Your task to perform on an android device: toggle translation in the chrome app Image 0: 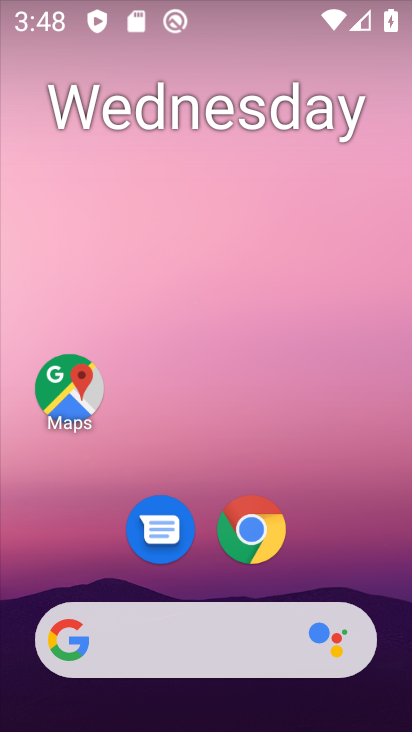
Step 0: click (263, 540)
Your task to perform on an android device: toggle translation in the chrome app Image 1: 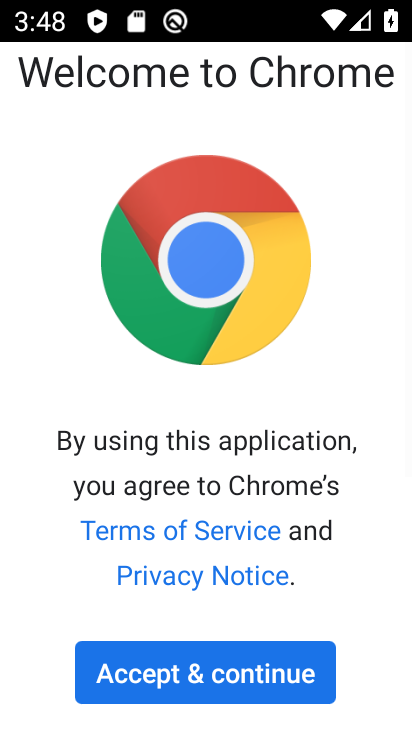
Step 1: click (245, 681)
Your task to perform on an android device: toggle translation in the chrome app Image 2: 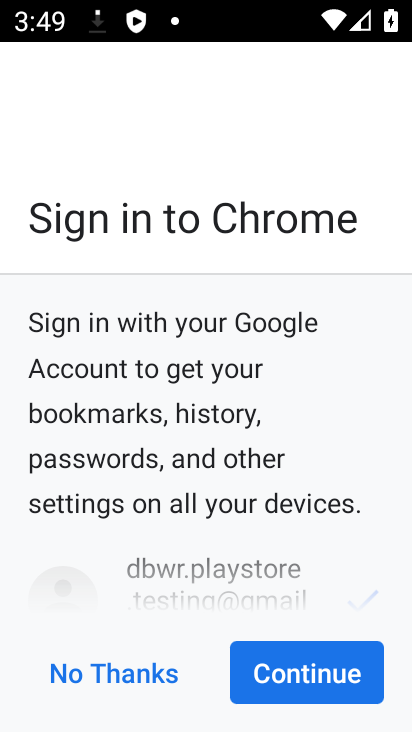
Step 2: click (275, 671)
Your task to perform on an android device: toggle translation in the chrome app Image 3: 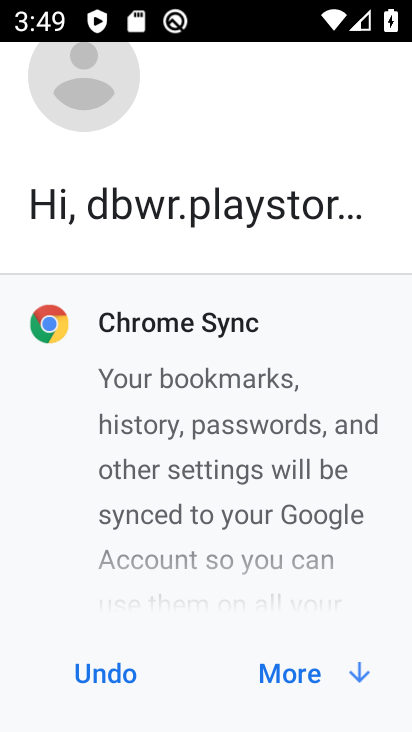
Step 3: click (275, 671)
Your task to perform on an android device: toggle translation in the chrome app Image 4: 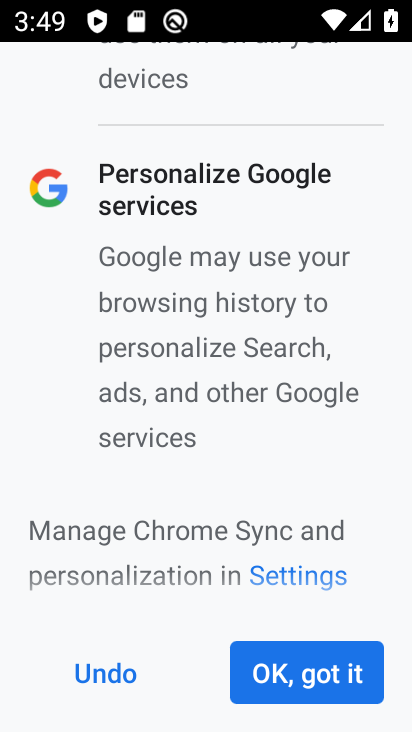
Step 4: click (275, 671)
Your task to perform on an android device: toggle translation in the chrome app Image 5: 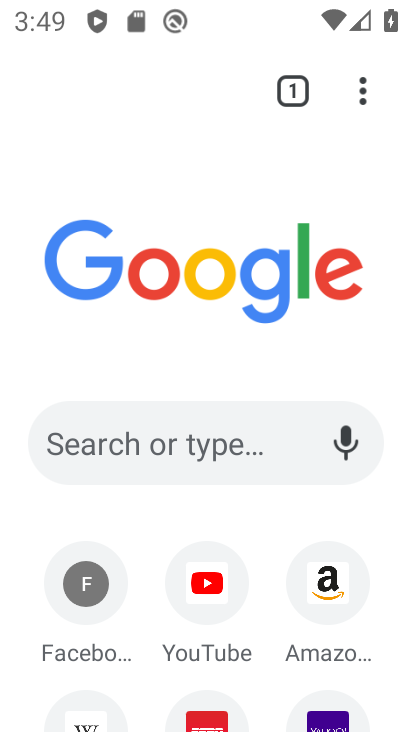
Step 5: drag from (361, 94) to (295, 582)
Your task to perform on an android device: toggle translation in the chrome app Image 6: 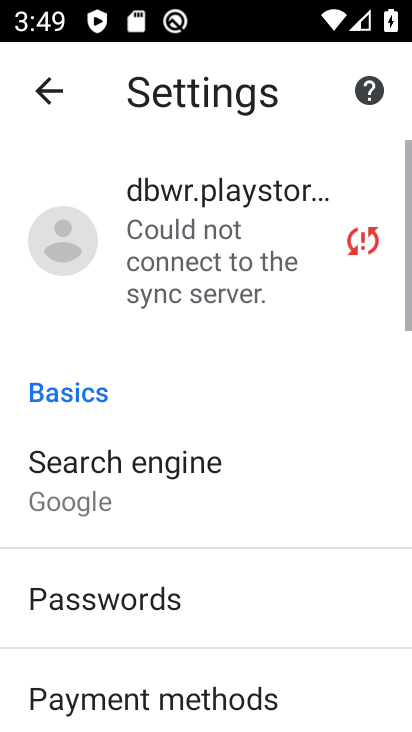
Step 6: drag from (295, 568) to (347, 168)
Your task to perform on an android device: toggle translation in the chrome app Image 7: 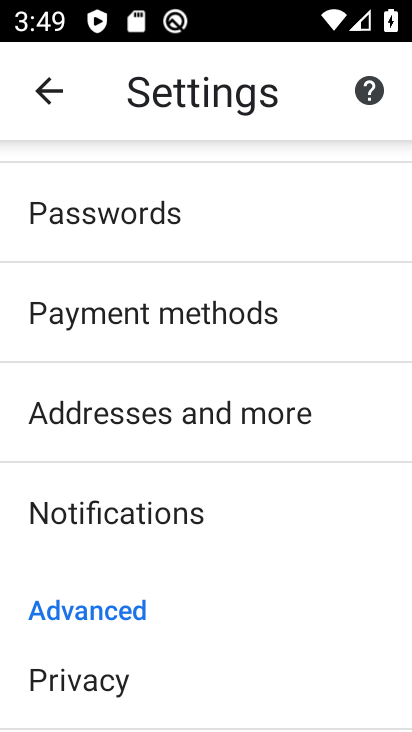
Step 7: drag from (265, 599) to (258, 211)
Your task to perform on an android device: toggle translation in the chrome app Image 8: 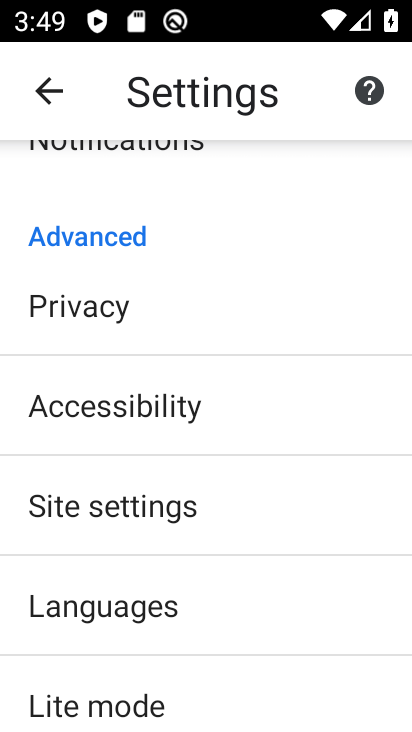
Step 8: click (188, 627)
Your task to perform on an android device: toggle translation in the chrome app Image 9: 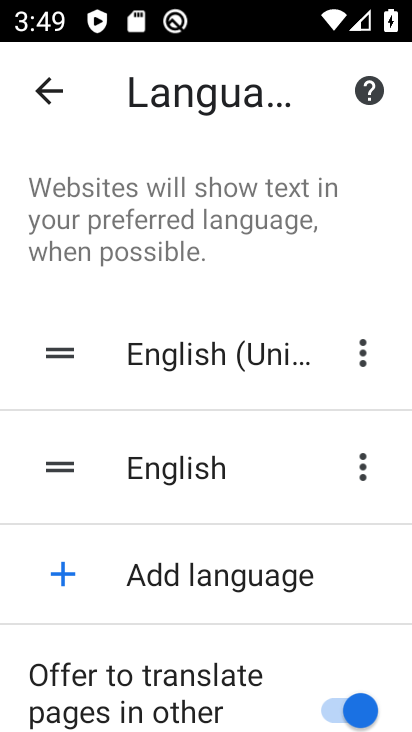
Step 9: click (355, 715)
Your task to perform on an android device: toggle translation in the chrome app Image 10: 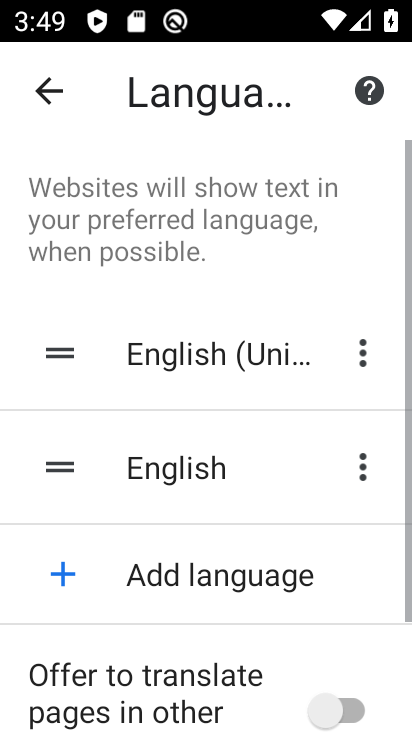
Step 10: task complete